Your task to perform on an android device: Go to Maps Image 0: 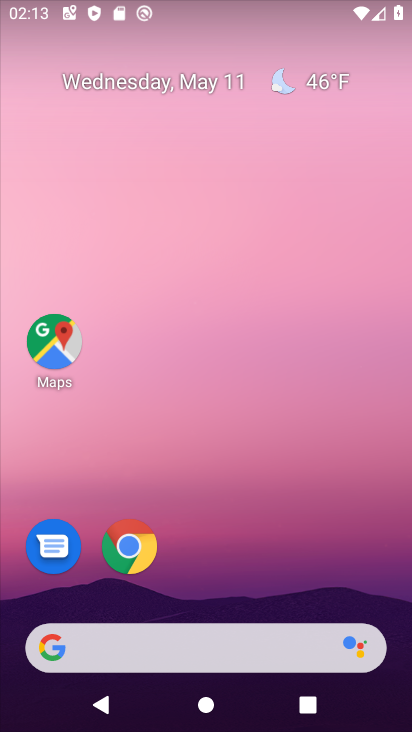
Step 0: drag from (165, 594) to (227, 180)
Your task to perform on an android device: Go to Maps Image 1: 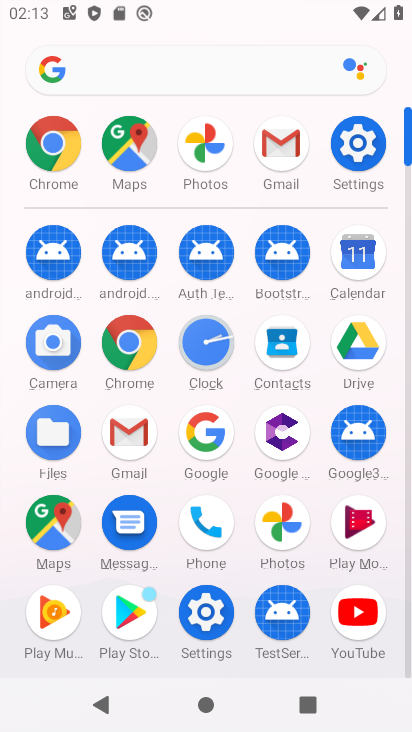
Step 1: click (51, 524)
Your task to perform on an android device: Go to Maps Image 2: 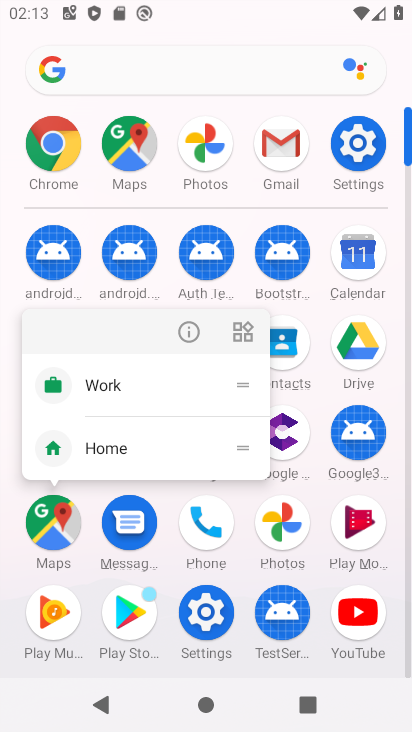
Step 2: click (182, 335)
Your task to perform on an android device: Go to Maps Image 3: 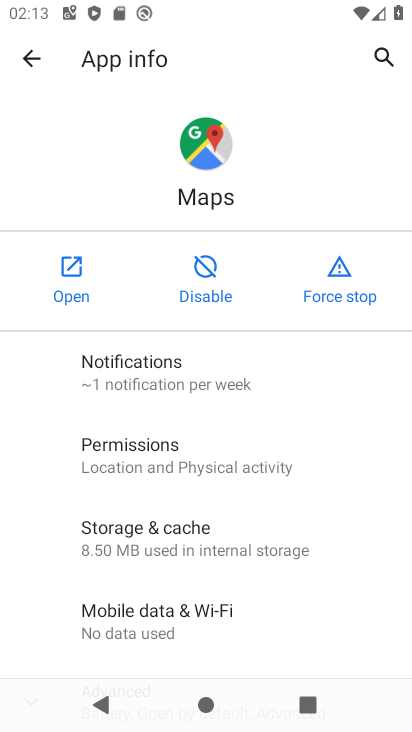
Step 3: click (68, 280)
Your task to perform on an android device: Go to Maps Image 4: 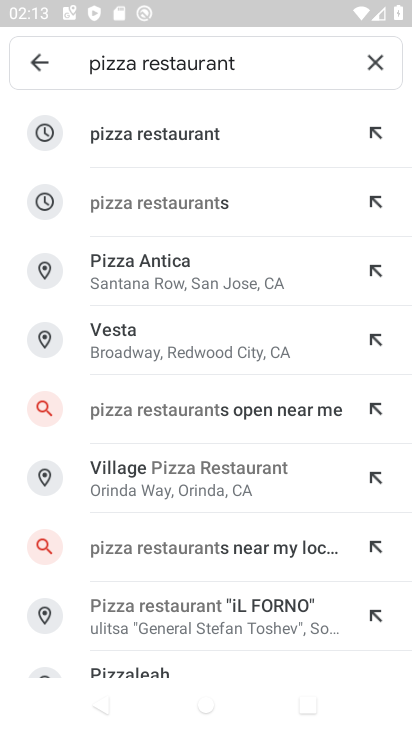
Step 4: task complete